Your task to perform on an android device: turn off location Image 0: 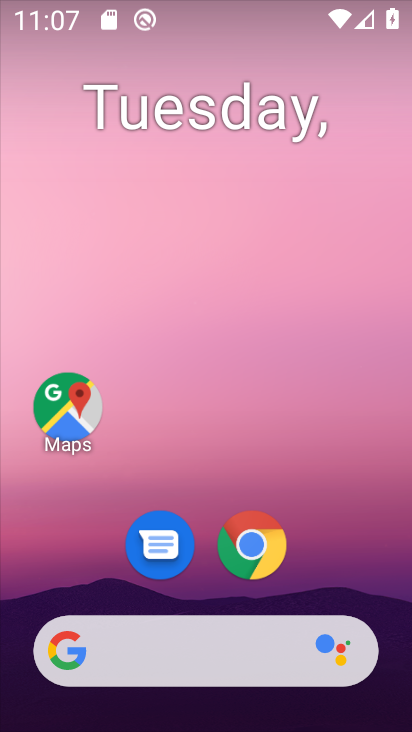
Step 0: drag from (346, 410) to (338, 123)
Your task to perform on an android device: turn off location Image 1: 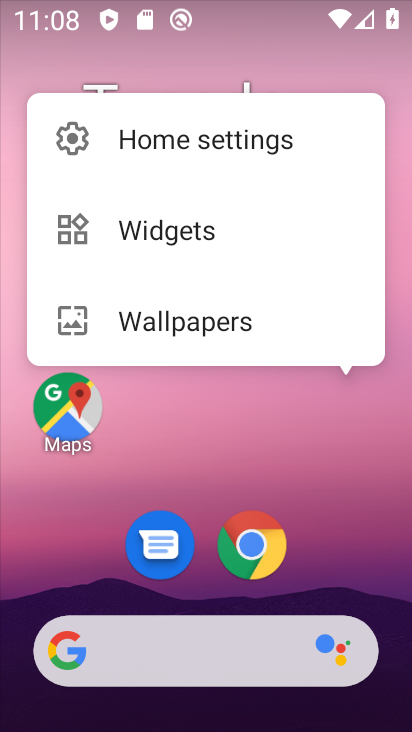
Step 1: click (312, 509)
Your task to perform on an android device: turn off location Image 2: 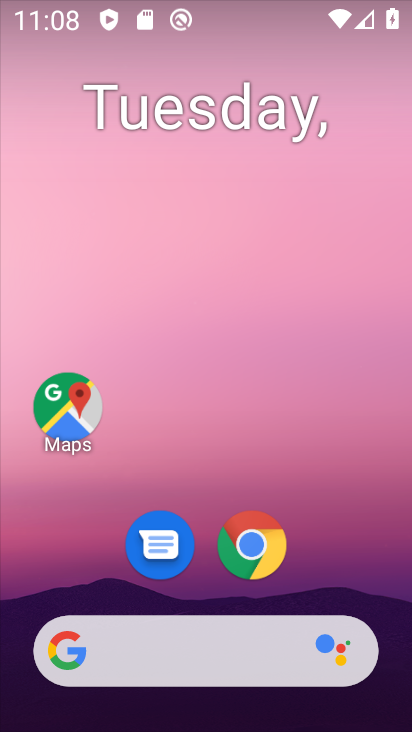
Step 2: drag from (317, 534) to (314, 112)
Your task to perform on an android device: turn off location Image 3: 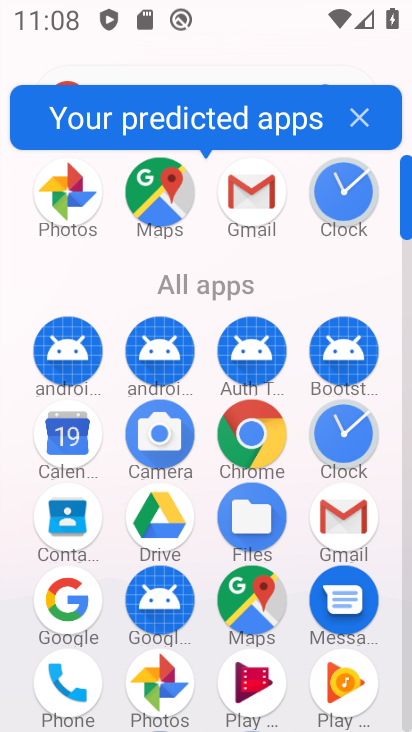
Step 3: drag from (204, 507) to (203, 248)
Your task to perform on an android device: turn off location Image 4: 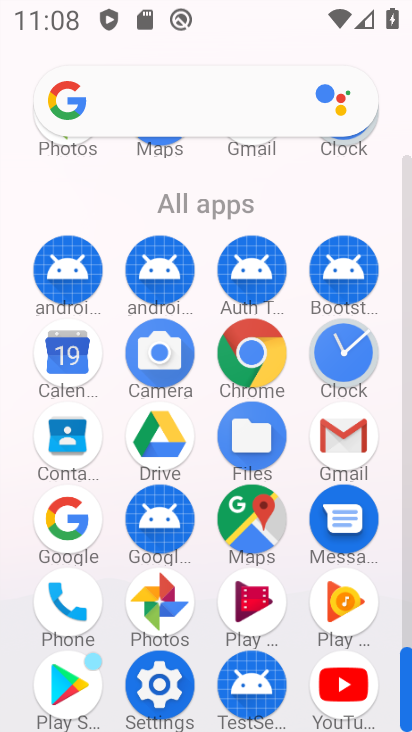
Step 4: click (169, 662)
Your task to perform on an android device: turn off location Image 5: 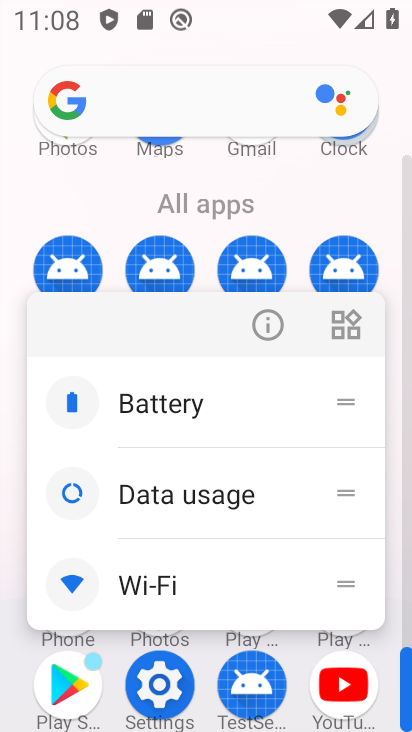
Step 5: click (169, 659)
Your task to perform on an android device: turn off location Image 6: 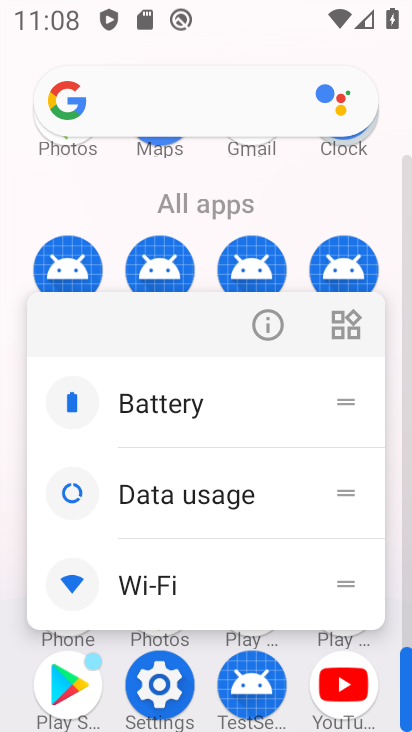
Step 6: click (169, 659)
Your task to perform on an android device: turn off location Image 7: 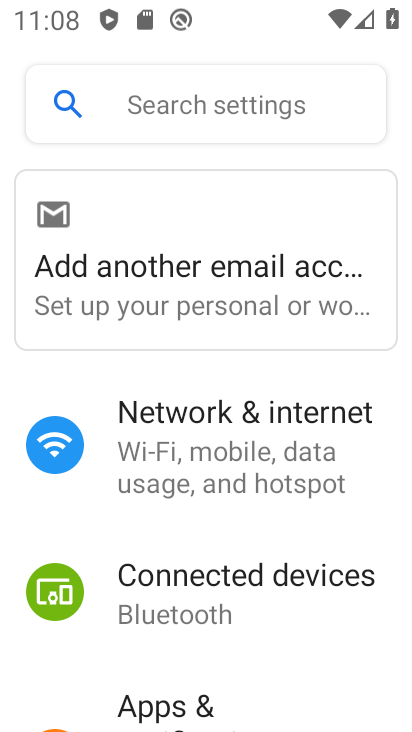
Step 7: drag from (225, 669) to (255, 305)
Your task to perform on an android device: turn off location Image 8: 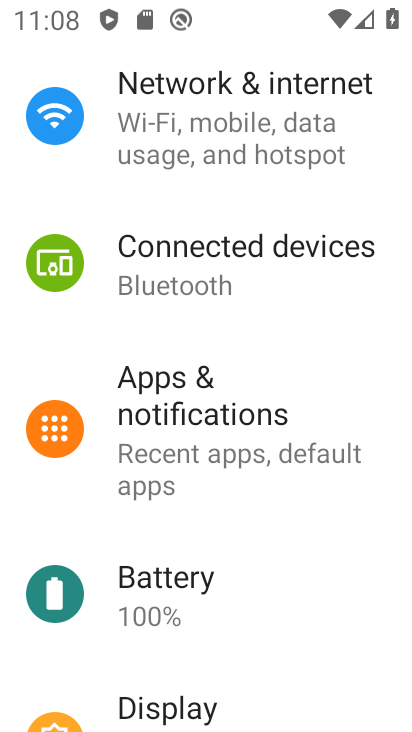
Step 8: drag from (246, 629) to (257, 130)
Your task to perform on an android device: turn off location Image 9: 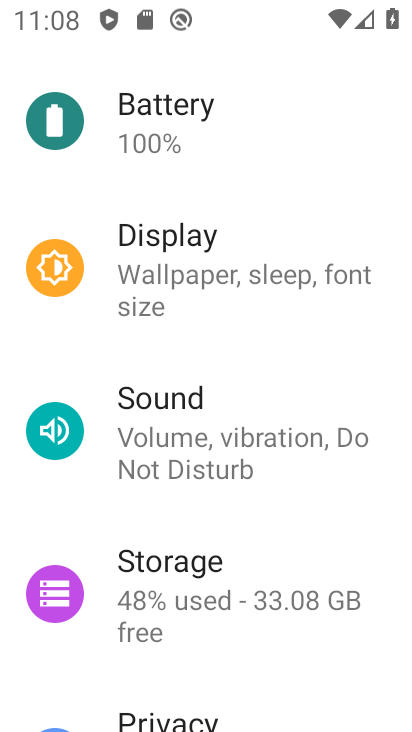
Step 9: drag from (252, 620) to (263, 148)
Your task to perform on an android device: turn off location Image 10: 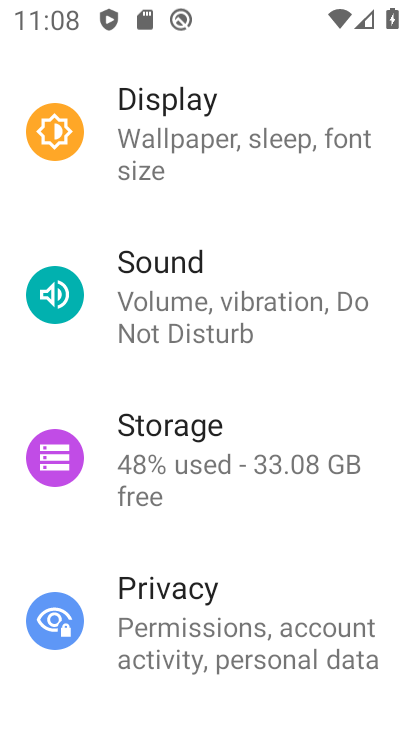
Step 10: drag from (234, 548) to (246, 204)
Your task to perform on an android device: turn off location Image 11: 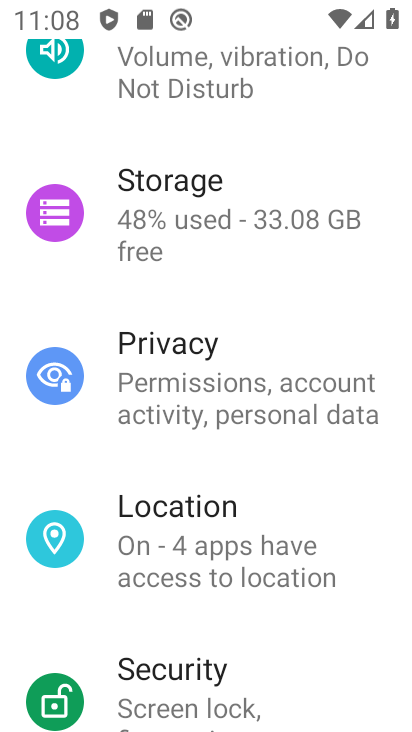
Step 11: click (208, 539)
Your task to perform on an android device: turn off location Image 12: 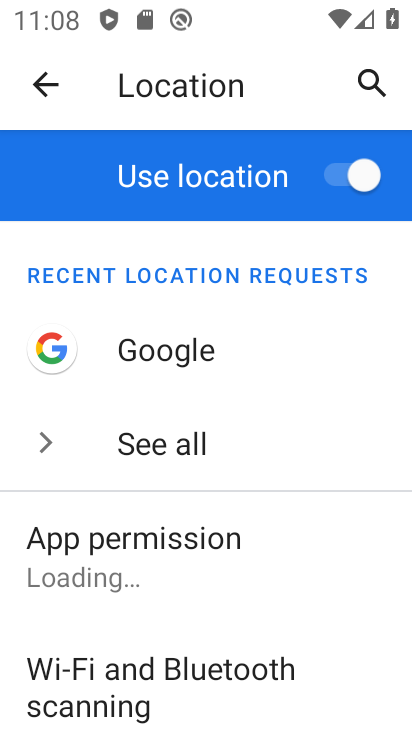
Step 12: click (343, 169)
Your task to perform on an android device: turn off location Image 13: 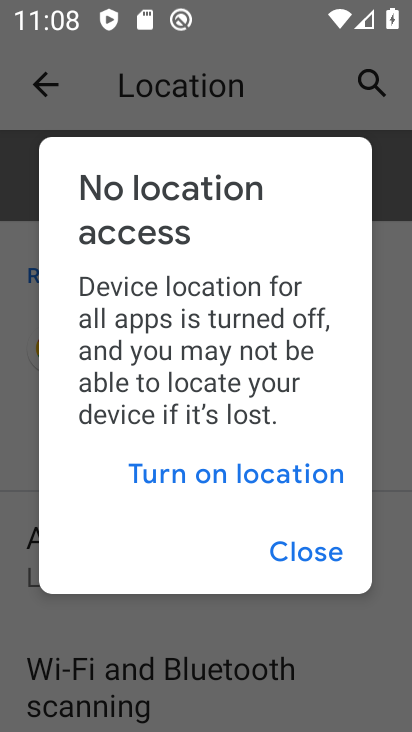
Step 13: task complete